Your task to perform on an android device: toggle pop-ups in chrome Image 0: 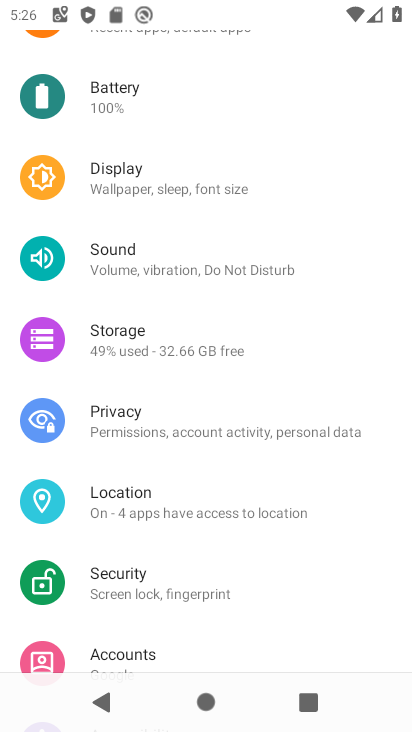
Step 0: press home button
Your task to perform on an android device: toggle pop-ups in chrome Image 1: 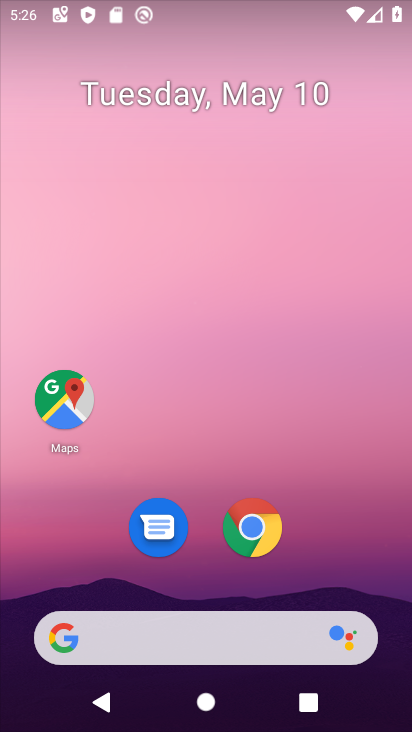
Step 1: click (264, 528)
Your task to perform on an android device: toggle pop-ups in chrome Image 2: 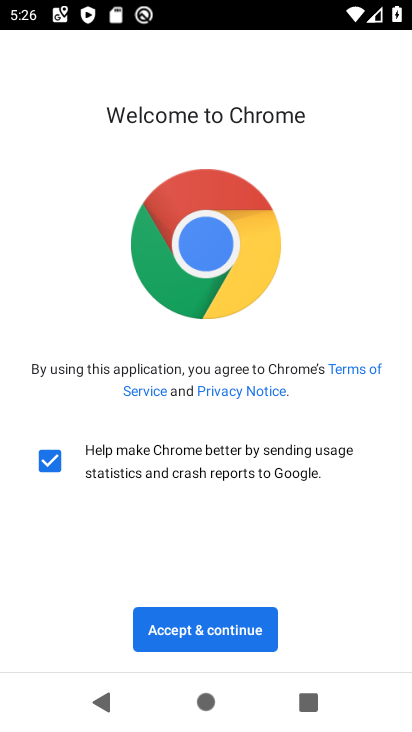
Step 2: click (229, 629)
Your task to perform on an android device: toggle pop-ups in chrome Image 3: 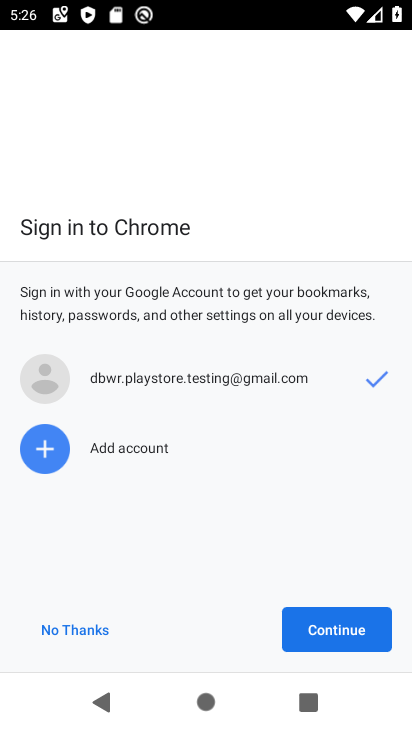
Step 3: click (326, 636)
Your task to perform on an android device: toggle pop-ups in chrome Image 4: 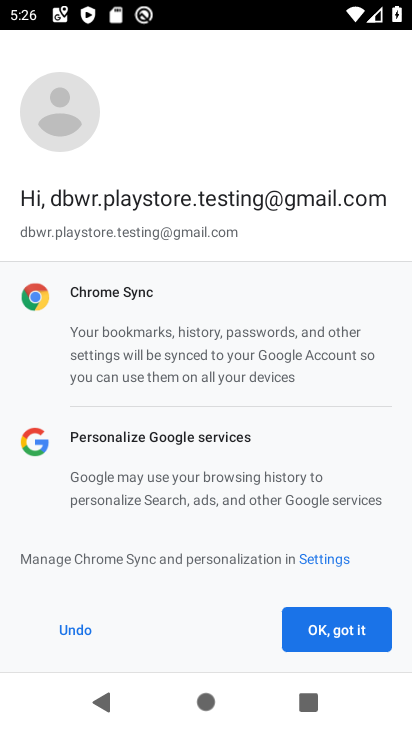
Step 4: click (326, 636)
Your task to perform on an android device: toggle pop-ups in chrome Image 5: 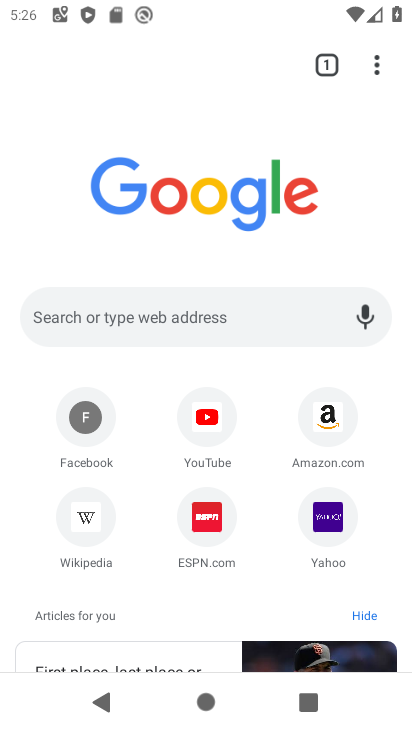
Step 5: click (381, 56)
Your task to perform on an android device: toggle pop-ups in chrome Image 6: 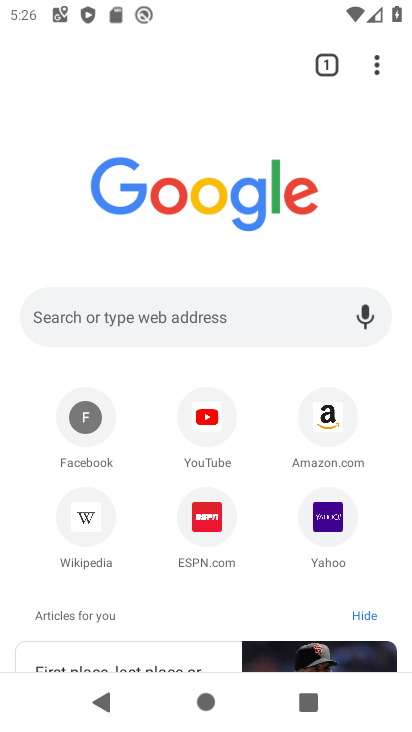
Step 6: click (374, 66)
Your task to perform on an android device: toggle pop-ups in chrome Image 7: 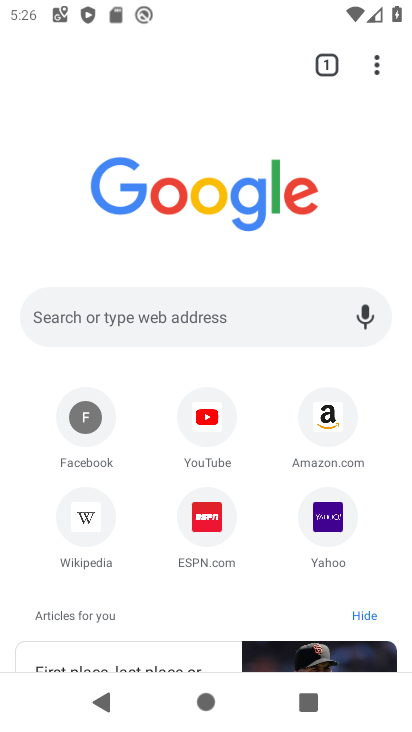
Step 7: click (377, 66)
Your task to perform on an android device: toggle pop-ups in chrome Image 8: 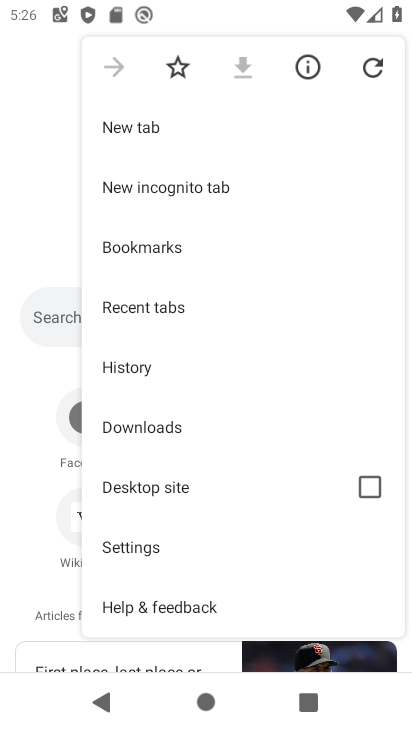
Step 8: click (159, 552)
Your task to perform on an android device: toggle pop-ups in chrome Image 9: 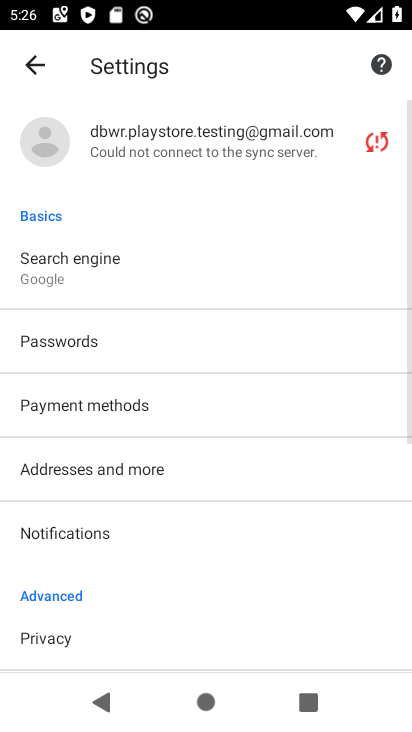
Step 9: drag from (196, 601) to (223, 236)
Your task to perform on an android device: toggle pop-ups in chrome Image 10: 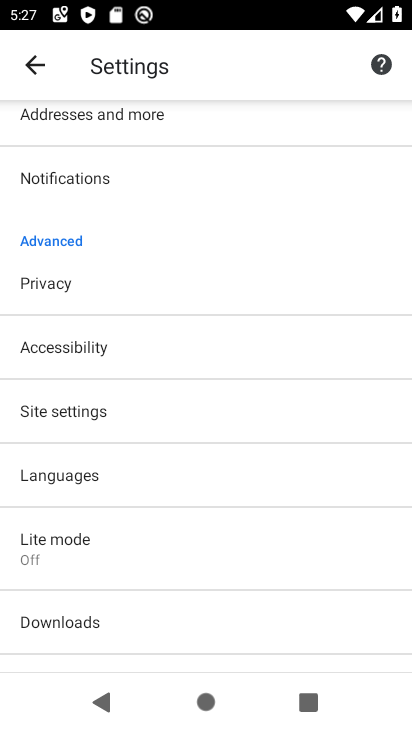
Step 10: click (105, 404)
Your task to perform on an android device: toggle pop-ups in chrome Image 11: 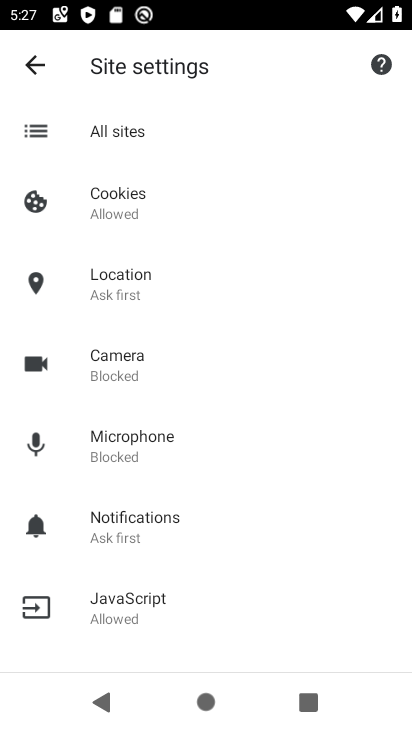
Step 11: drag from (188, 549) to (177, 157)
Your task to perform on an android device: toggle pop-ups in chrome Image 12: 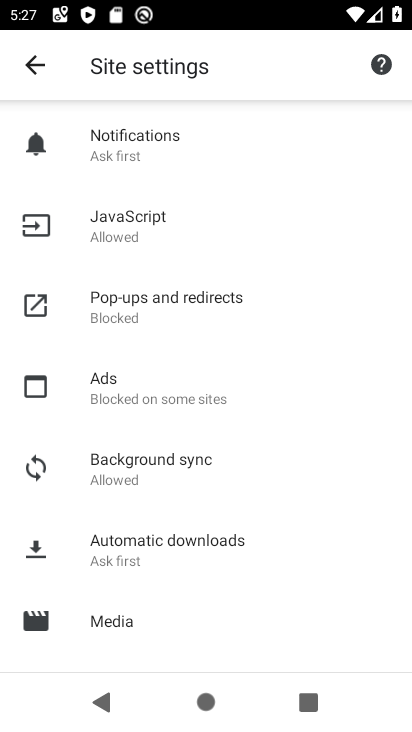
Step 12: click (163, 302)
Your task to perform on an android device: toggle pop-ups in chrome Image 13: 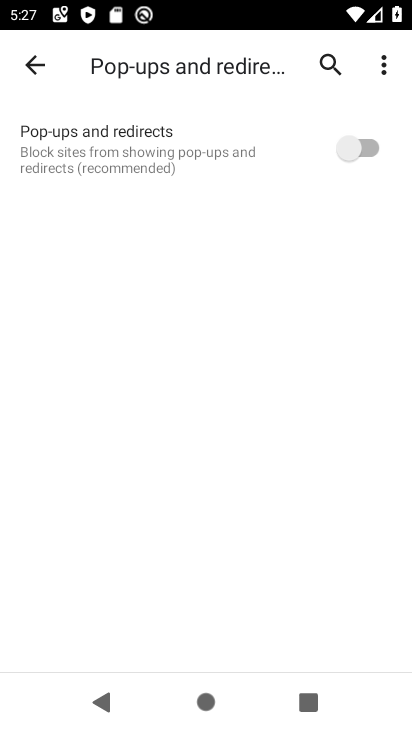
Step 13: click (370, 142)
Your task to perform on an android device: toggle pop-ups in chrome Image 14: 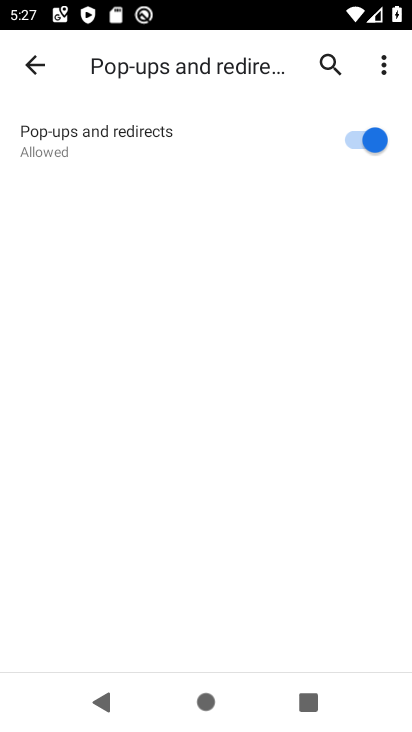
Step 14: task complete